Your task to perform on an android device: see tabs open on other devices in the chrome app Image 0: 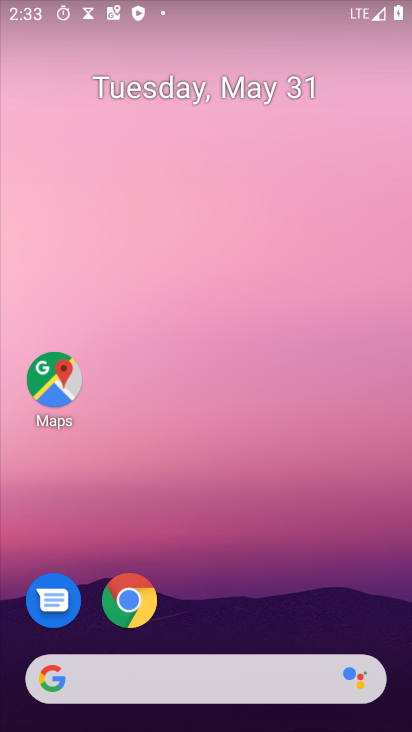
Step 0: drag from (216, 638) to (247, 129)
Your task to perform on an android device: see tabs open on other devices in the chrome app Image 1: 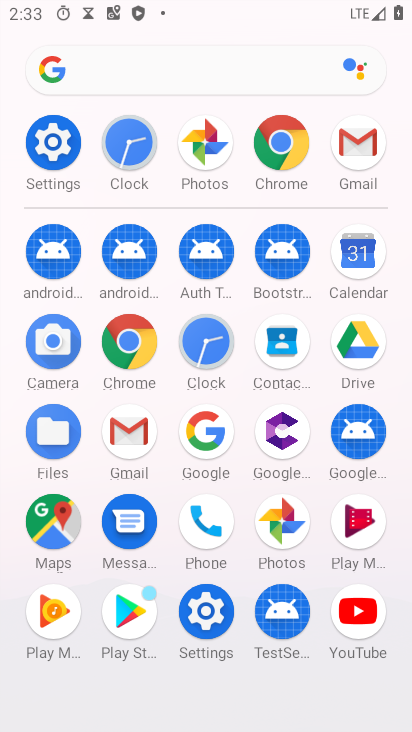
Step 1: click (275, 141)
Your task to perform on an android device: see tabs open on other devices in the chrome app Image 2: 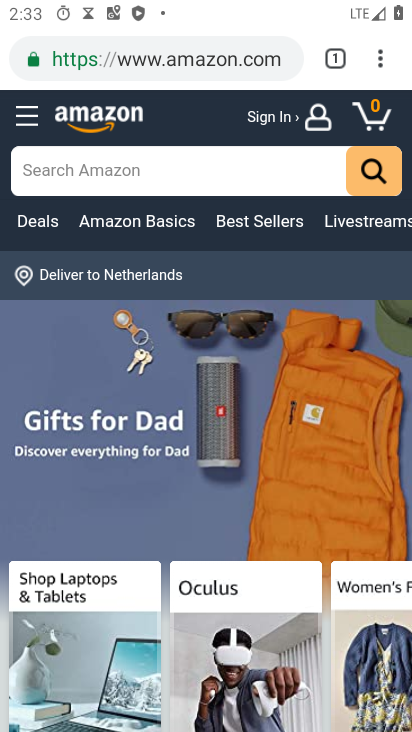
Step 2: click (376, 49)
Your task to perform on an android device: see tabs open on other devices in the chrome app Image 3: 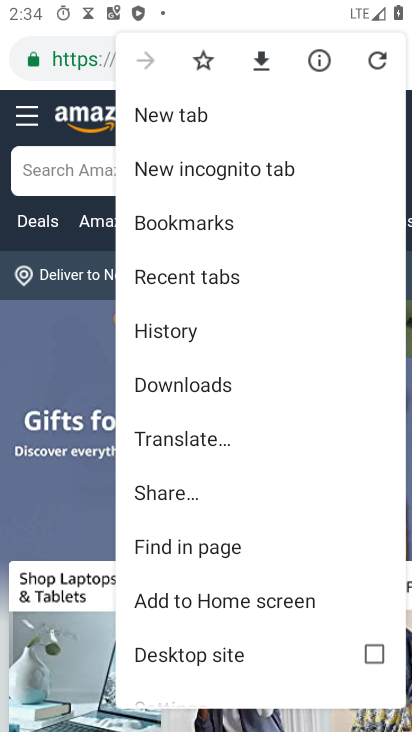
Step 3: click (249, 272)
Your task to perform on an android device: see tabs open on other devices in the chrome app Image 4: 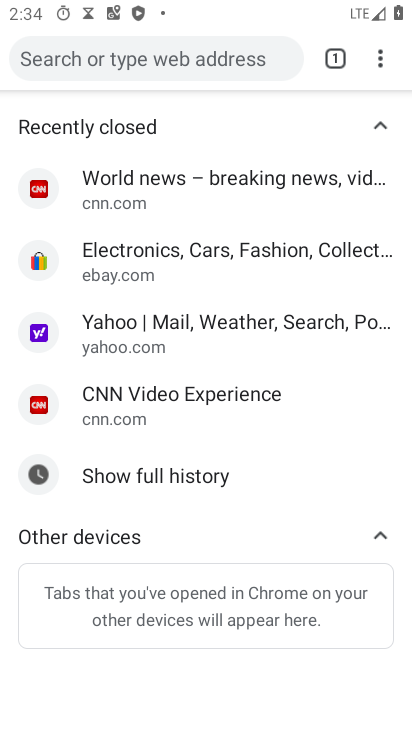
Step 4: task complete